Your task to perform on an android device: Open battery settings Image 0: 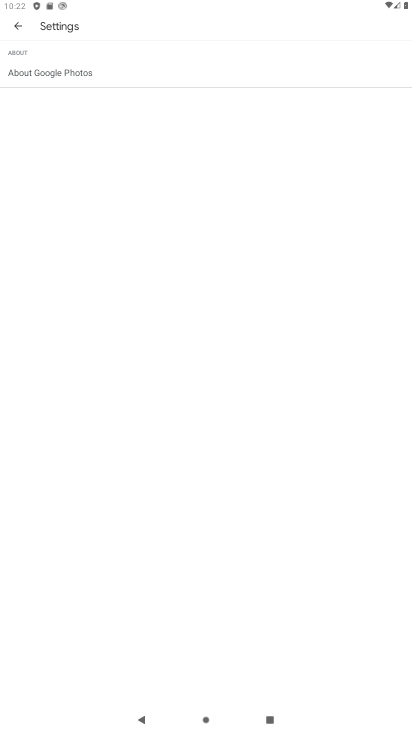
Step 0: press home button
Your task to perform on an android device: Open battery settings Image 1: 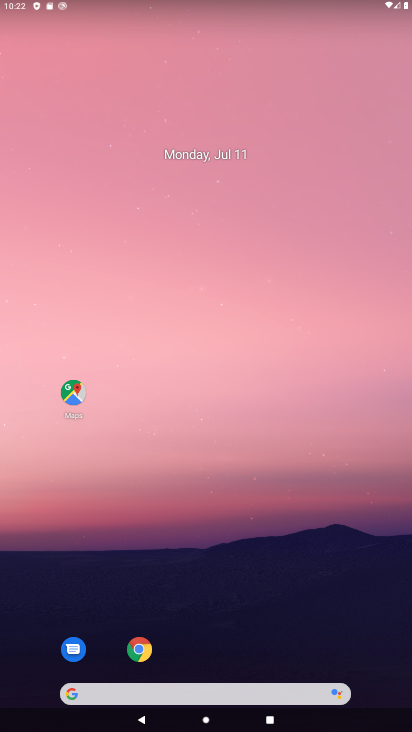
Step 1: drag from (225, 699) to (209, 243)
Your task to perform on an android device: Open battery settings Image 2: 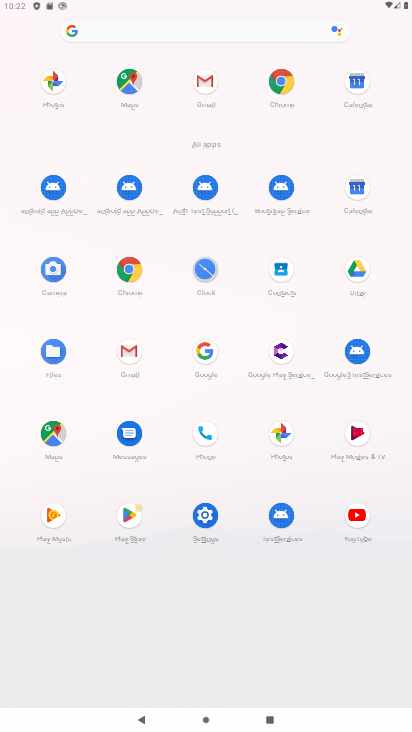
Step 2: click (205, 512)
Your task to perform on an android device: Open battery settings Image 3: 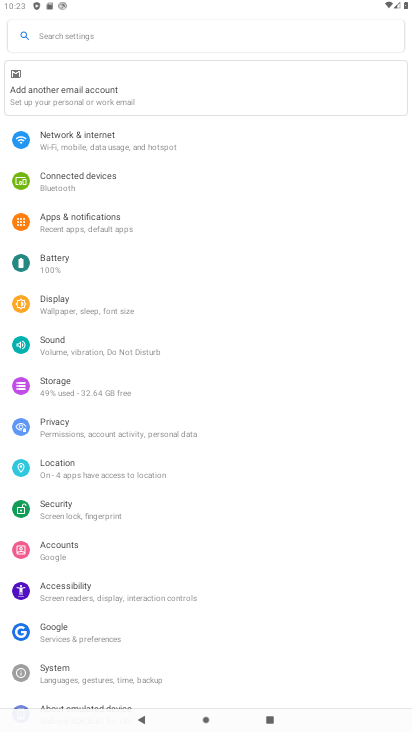
Step 3: click (59, 271)
Your task to perform on an android device: Open battery settings Image 4: 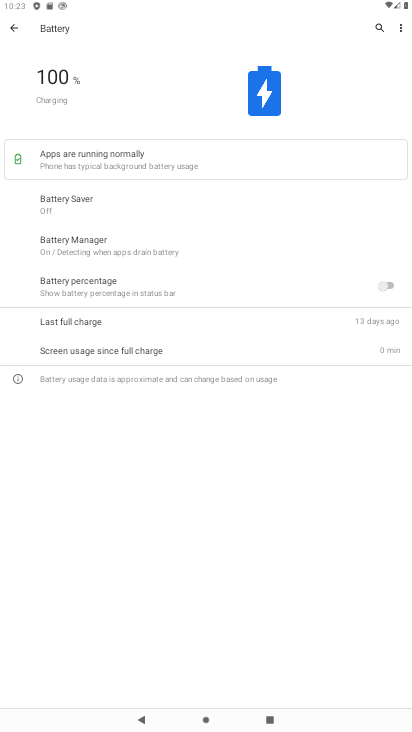
Step 4: task complete